Your task to perform on an android device: turn off airplane mode Image 0: 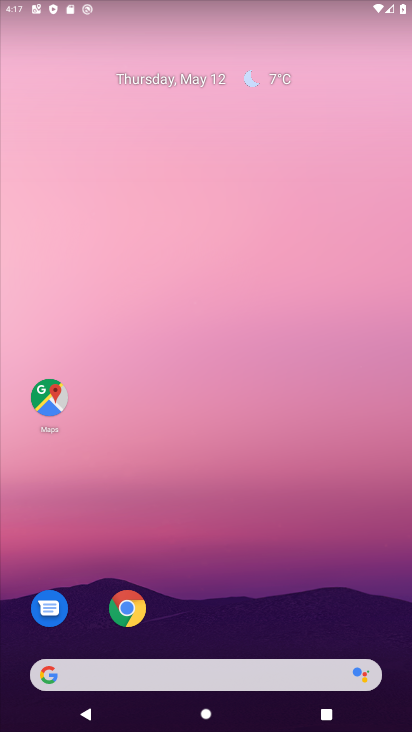
Step 0: drag from (216, 11) to (259, 560)
Your task to perform on an android device: turn off airplane mode Image 1: 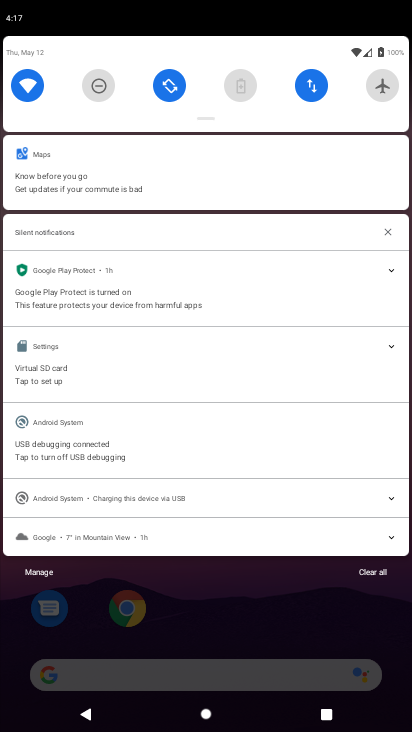
Step 1: task complete